Your task to perform on an android device: find snoozed emails in the gmail app Image 0: 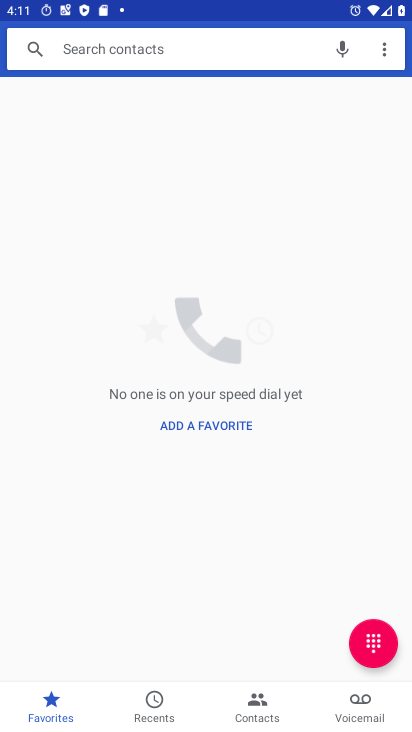
Step 0: press home button
Your task to perform on an android device: find snoozed emails in the gmail app Image 1: 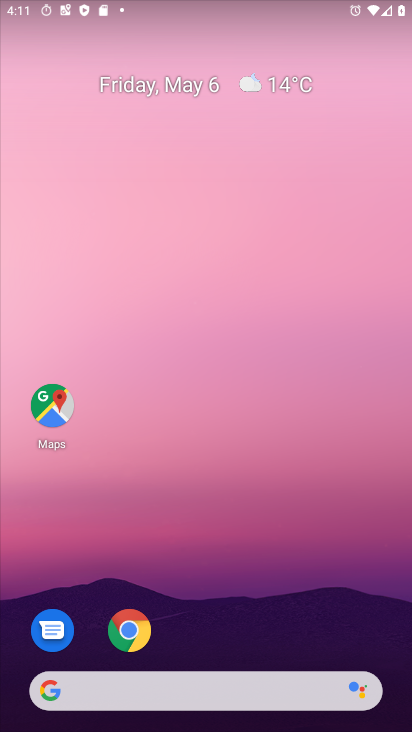
Step 1: drag from (203, 634) to (205, 153)
Your task to perform on an android device: find snoozed emails in the gmail app Image 2: 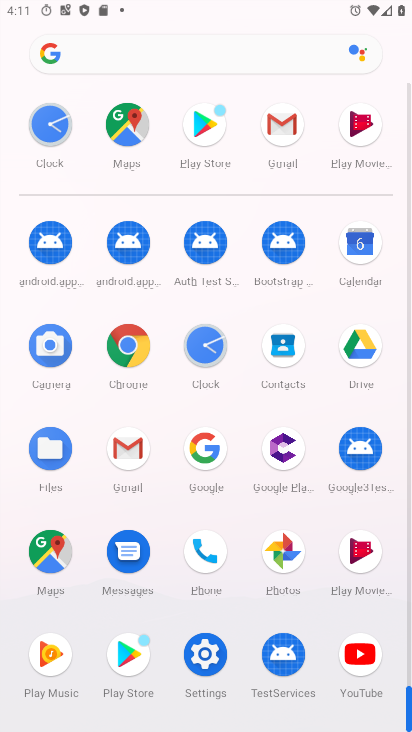
Step 2: click (116, 450)
Your task to perform on an android device: find snoozed emails in the gmail app Image 3: 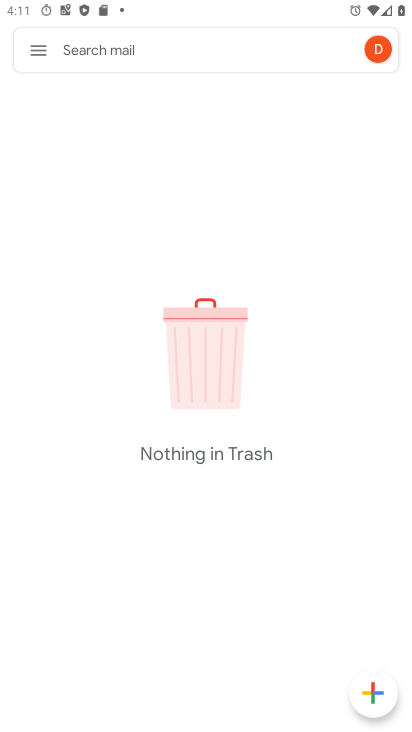
Step 3: click (39, 57)
Your task to perform on an android device: find snoozed emails in the gmail app Image 4: 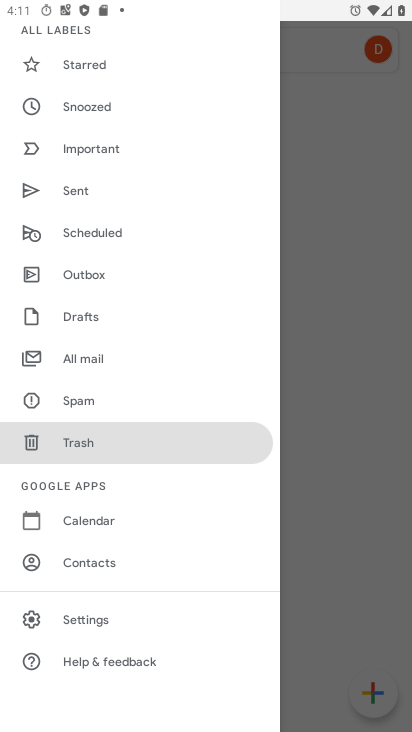
Step 4: click (69, 101)
Your task to perform on an android device: find snoozed emails in the gmail app Image 5: 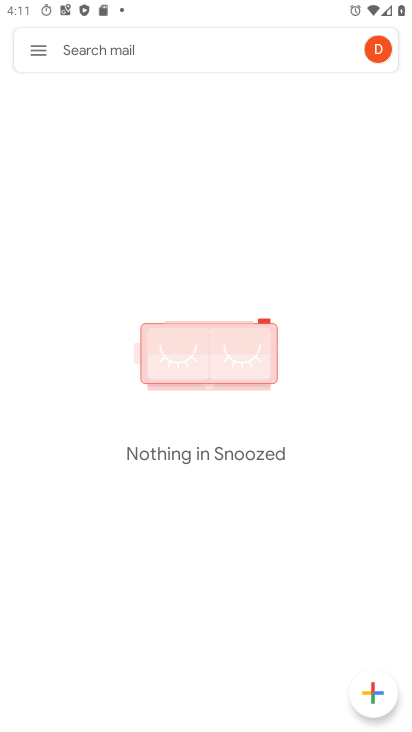
Step 5: task complete